Your task to perform on an android device: open wifi settings Image 0: 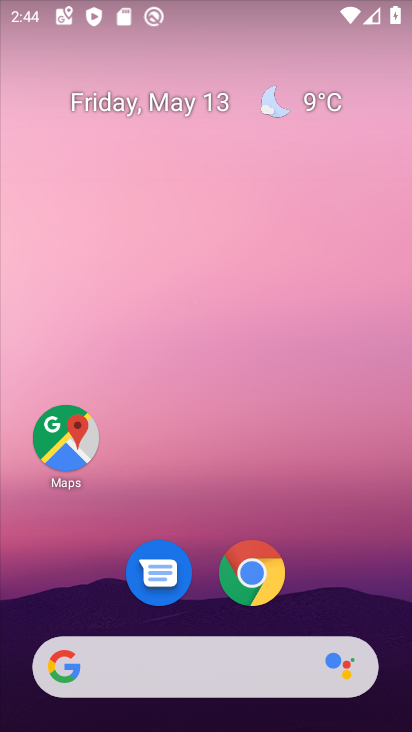
Step 0: drag from (340, 595) to (276, 38)
Your task to perform on an android device: open wifi settings Image 1: 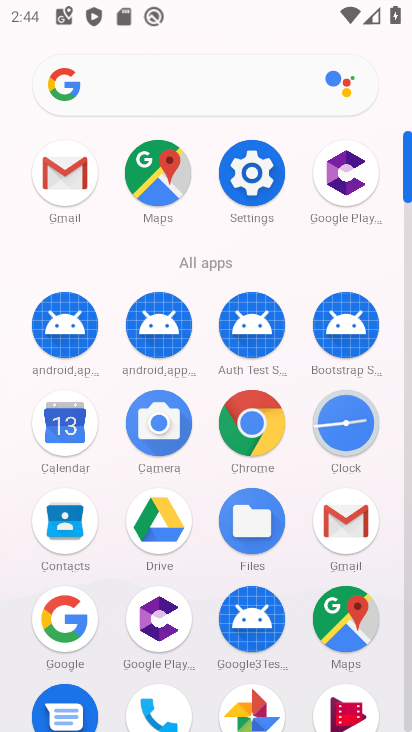
Step 1: click (252, 173)
Your task to perform on an android device: open wifi settings Image 2: 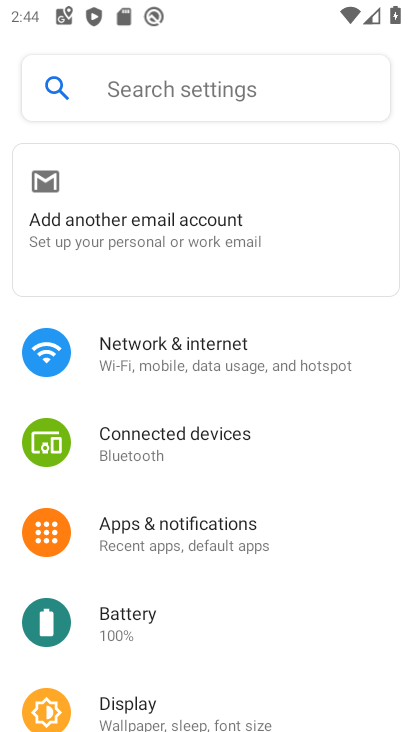
Step 2: click (188, 347)
Your task to perform on an android device: open wifi settings Image 3: 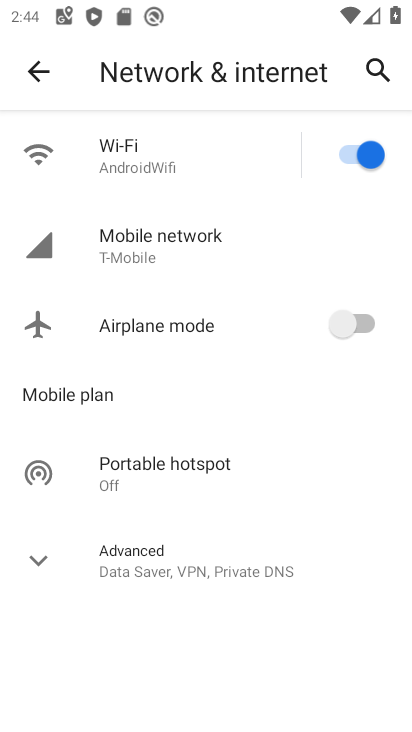
Step 3: click (121, 145)
Your task to perform on an android device: open wifi settings Image 4: 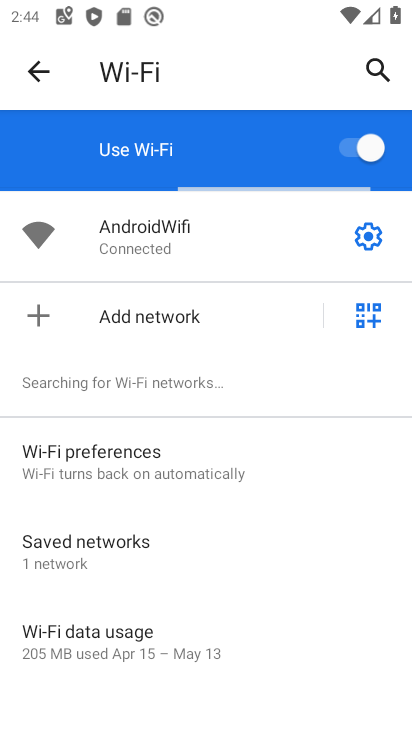
Step 4: click (371, 240)
Your task to perform on an android device: open wifi settings Image 5: 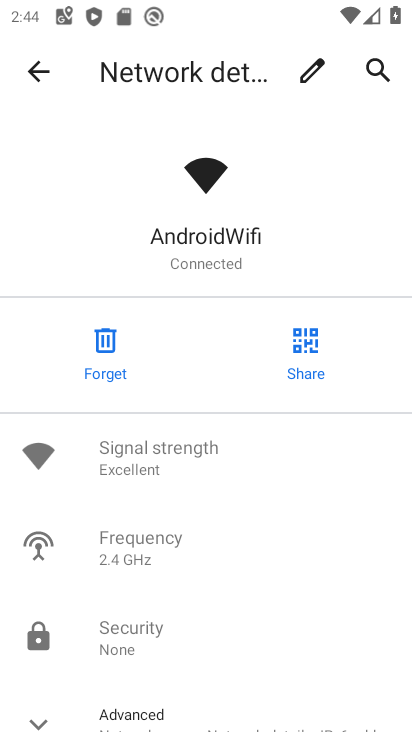
Step 5: task complete